Your task to perform on an android device: Clear all items from cart on target. Image 0: 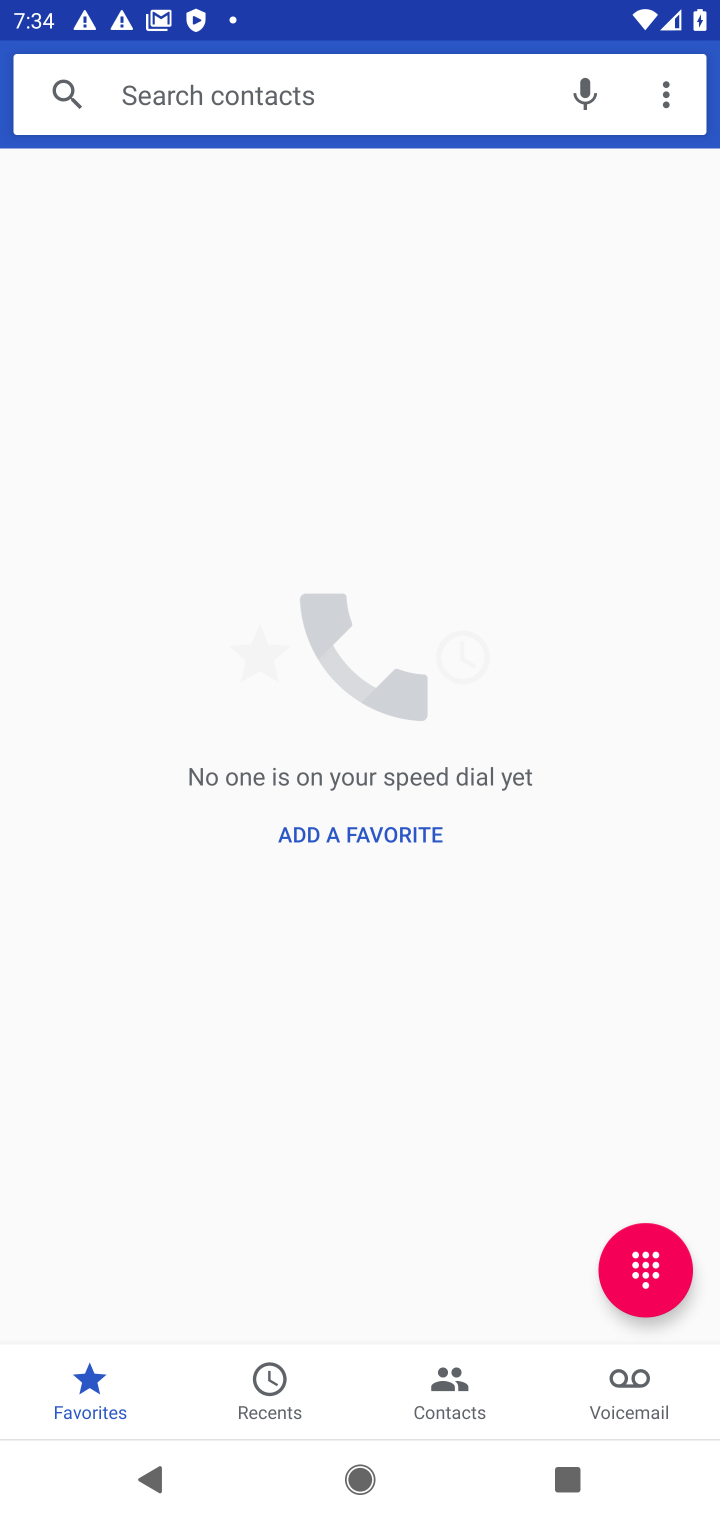
Step 0: press home button
Your task to perform on an android device: Clear all items from cart on target. Image 1: 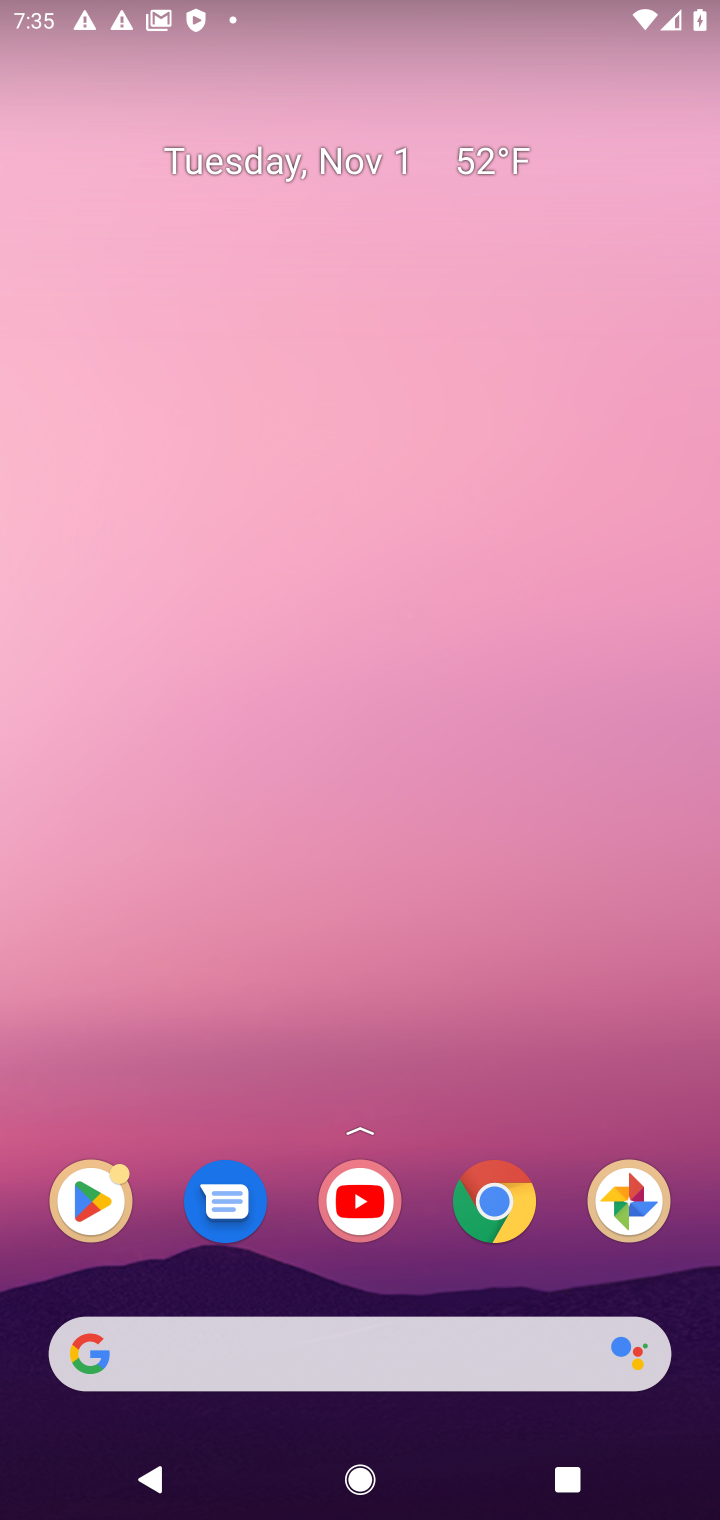
Step 1: click (429, 1359)
Your task to perform on an android device: Clear all items from cart on target. Image 2: 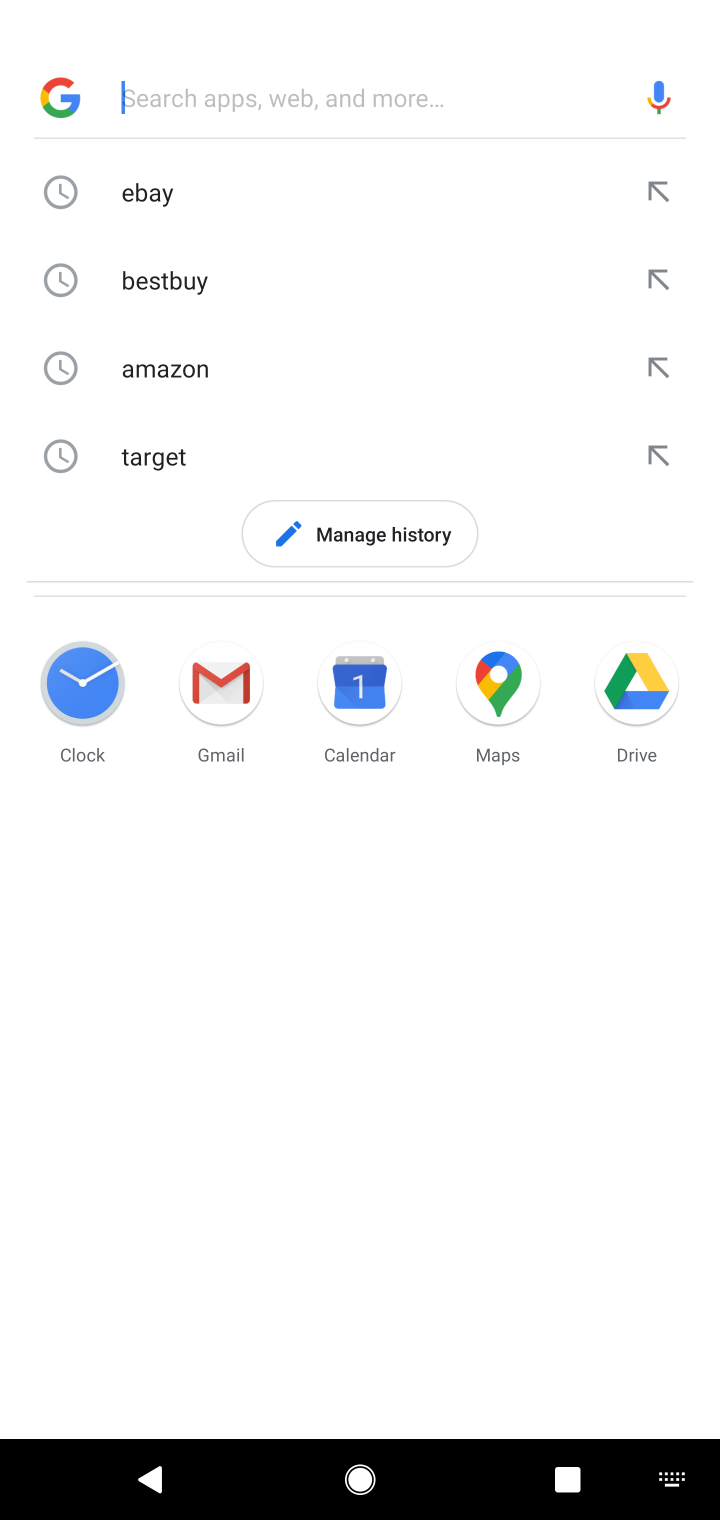
Step 2: click (154, 449)
Your task to perform on an android device: Clear all items from cart on target. Image 3: 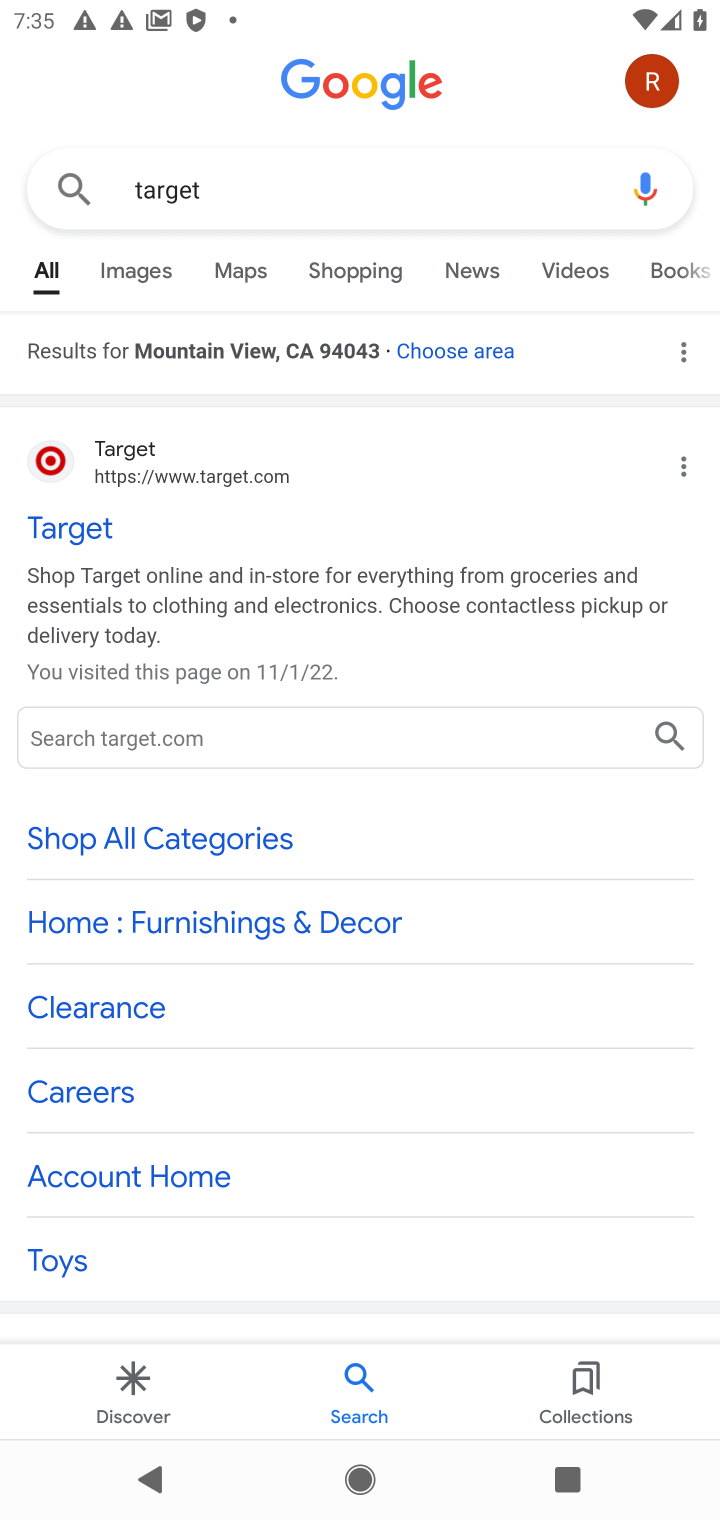
Step 3: click (124, 479)
Your task to perform on an android device: Clear all items from cart on target. Image 4: 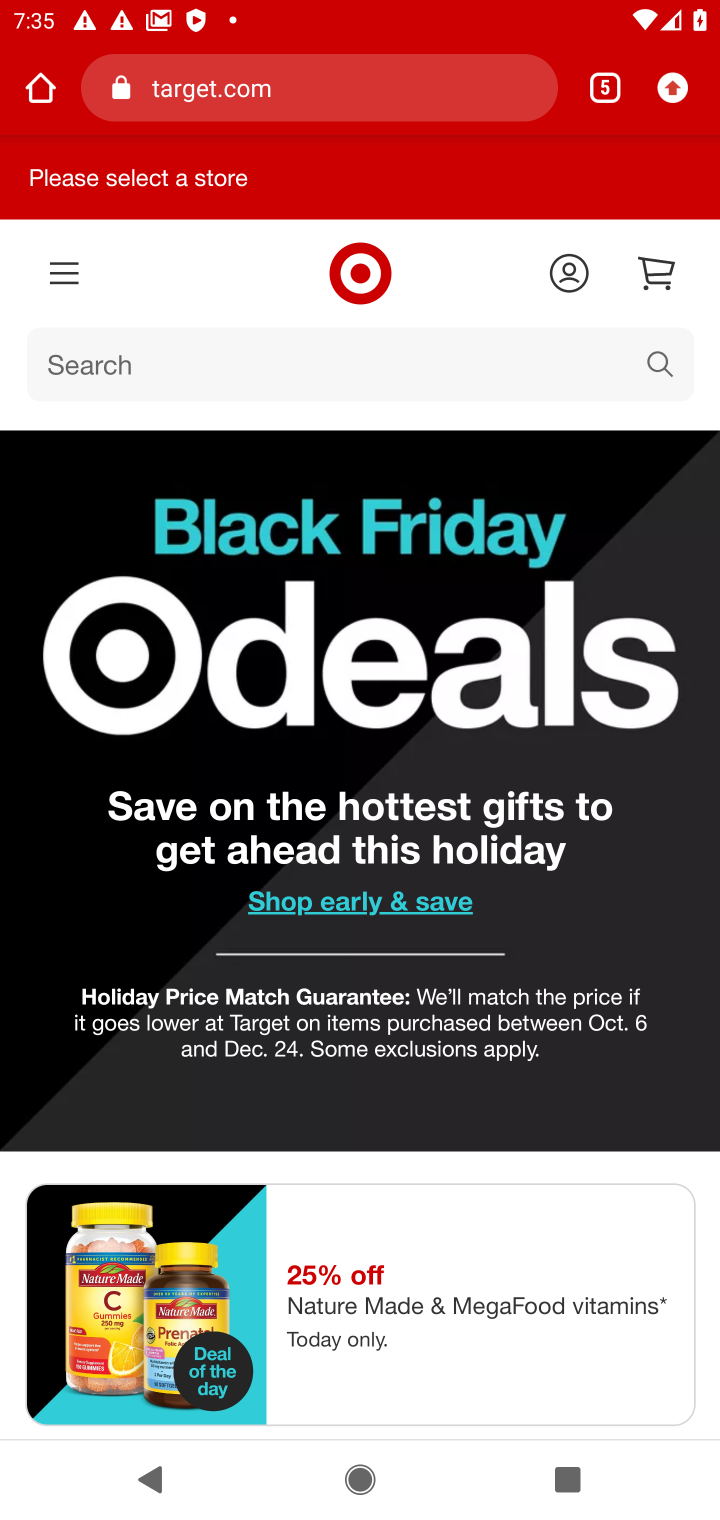
Step 4: click (661, 275)
Your task to perform on an android device: Clear all items from cart on target. Image 5: 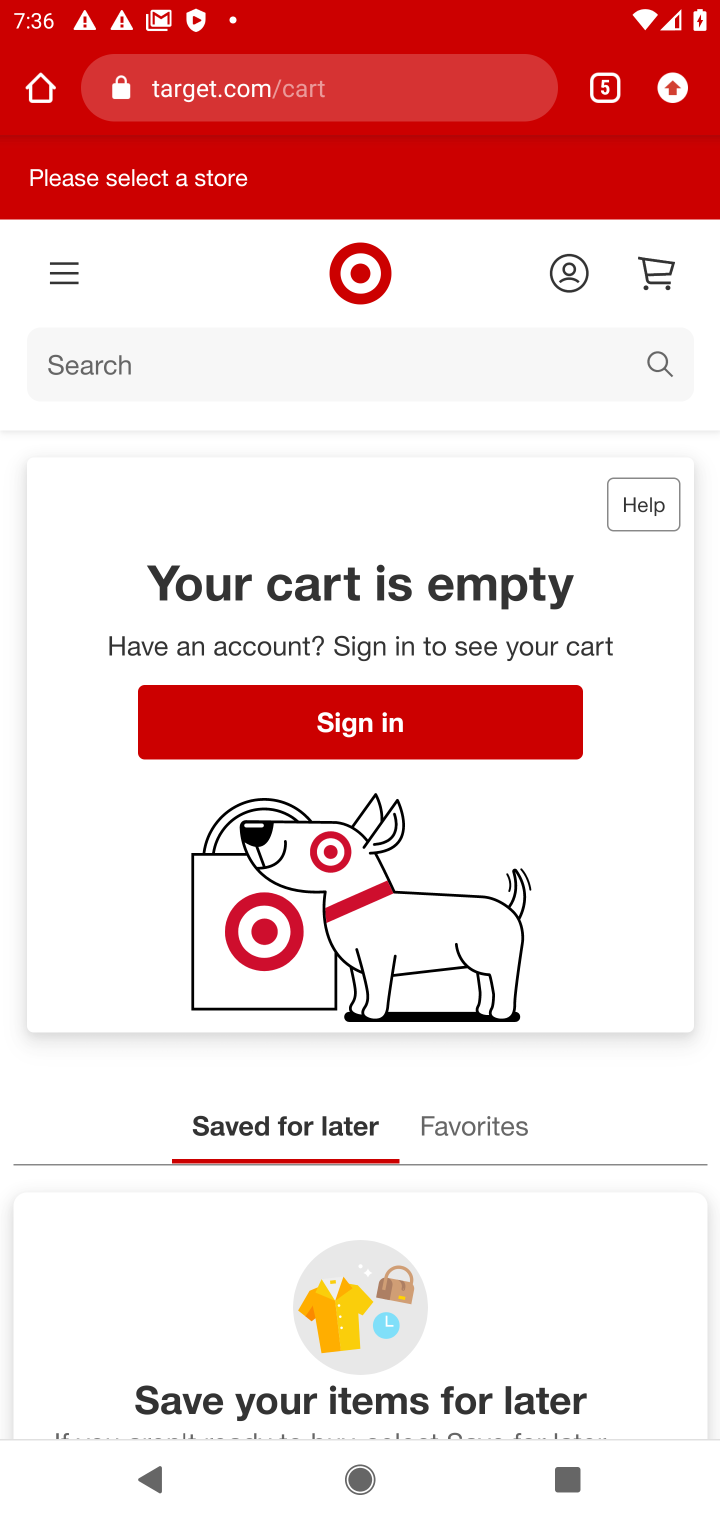
Step 5: task complete